Your task to perform on an android device: turn notification dots off Image 0: 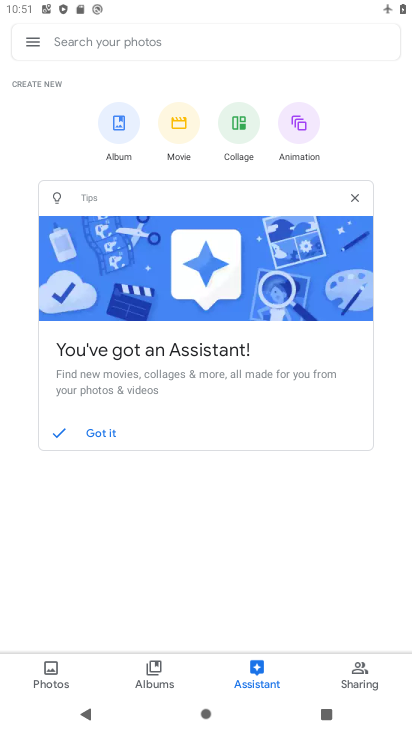
Step 0: press home button
Your task to perform on an android device: turn notification dots off Image 1: 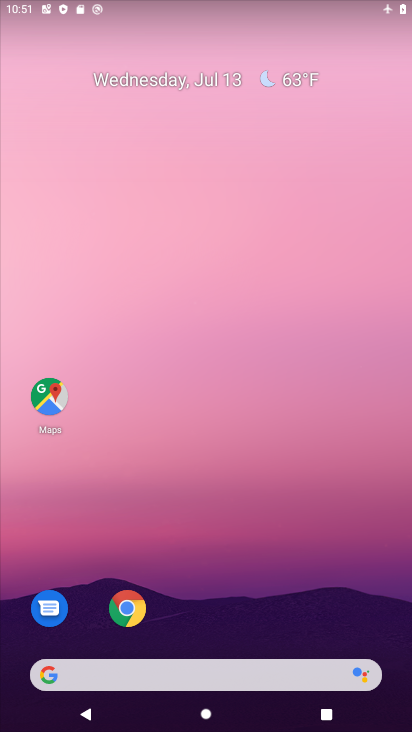
Step 1: drag from (181, 620) to (239, 43)
Your task to perform on an android device: turn notification dots off Image 2: 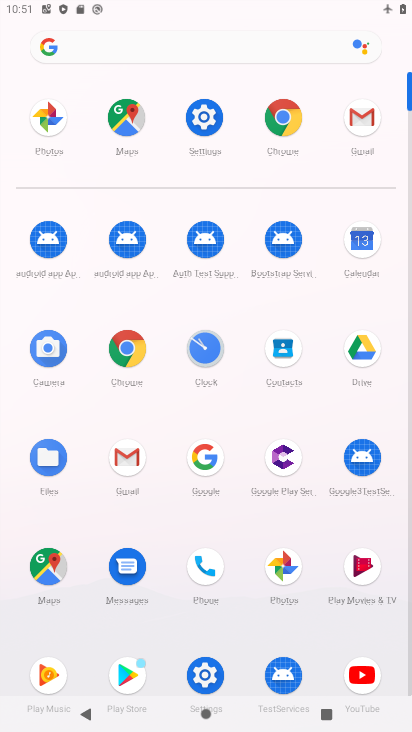
Step 2: click (195, 680)
Your task to perform on an android device: turn notification dots off Image 3: 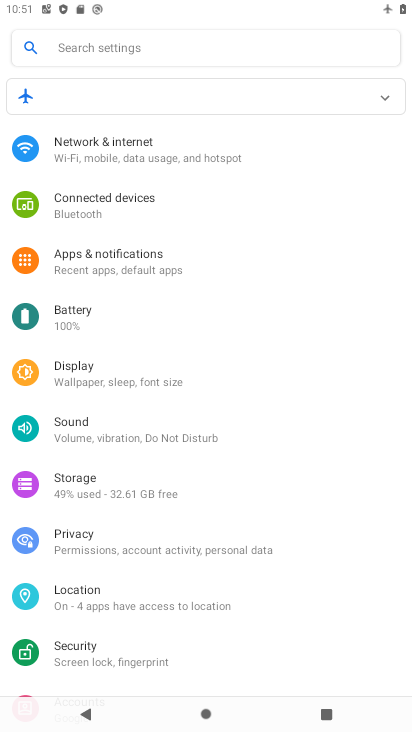
Step 3: click (160, 260)
Your task to perform on an android device: turn notification dots off Image 4: 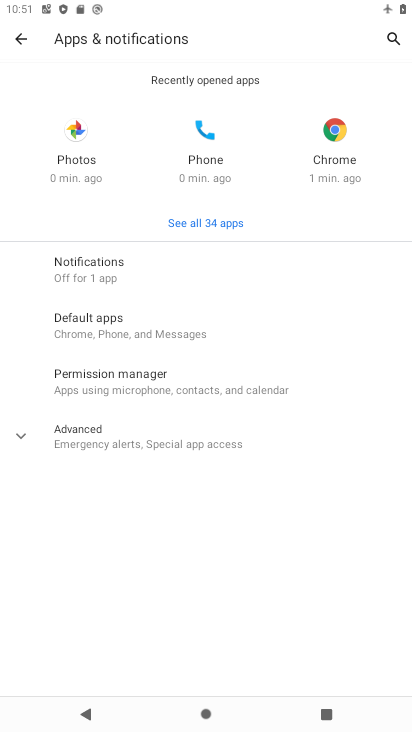
Step 4: click (103, 265)
Your task to perform on an android device: turn notification dots off Image 5: 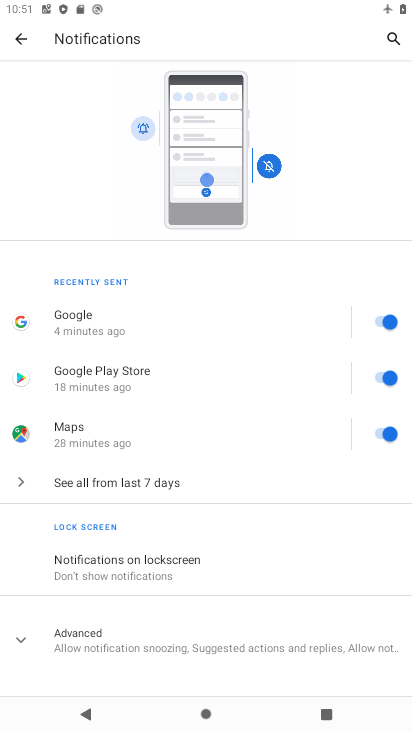
Step 5: click (153, 638)
Your task to perform on an android device: turn notification dots off Image 6: 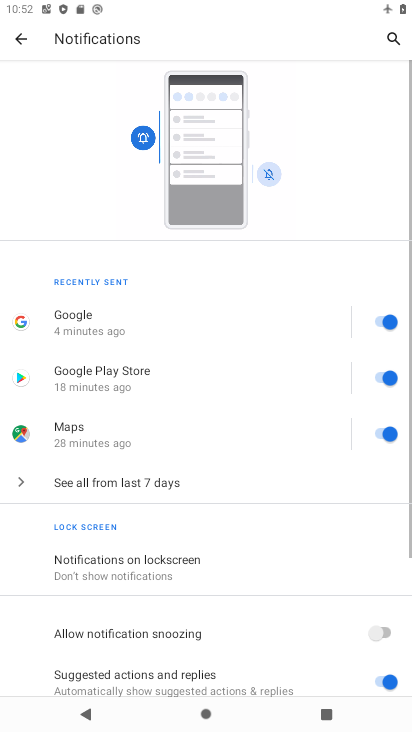
Step 6: drag from (321, 626) to (349, 390)
Your task to perform on an android device: turn notification dots off Image 7: 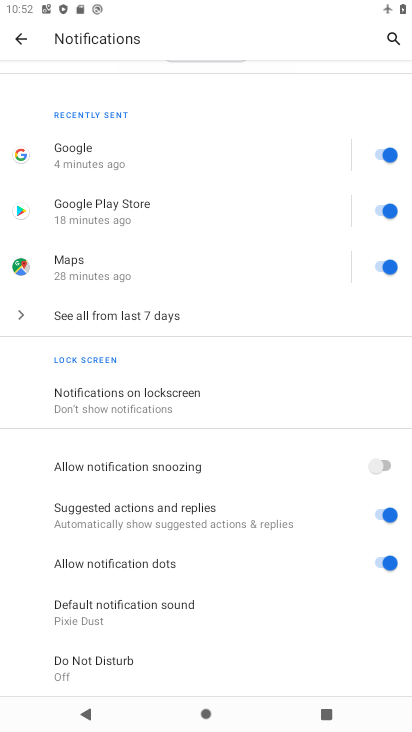
Step 7: click (389, 561)
Your task to perform on an android device: turn notification dots off Image 8: 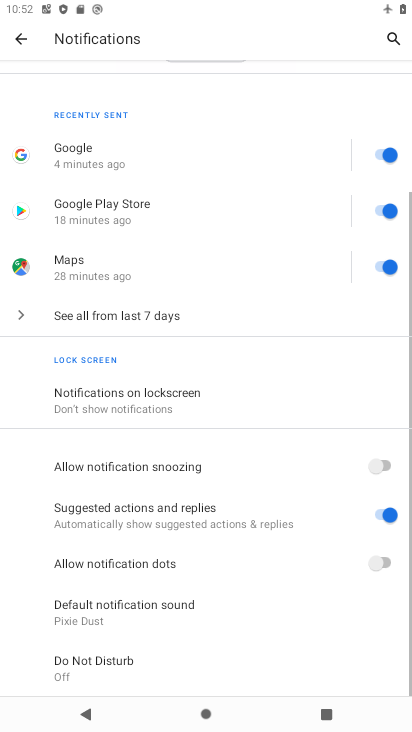
Step 8: task complete